Your task to perform on an android device: Open calendar and show me the fourth week of next month Image 0: 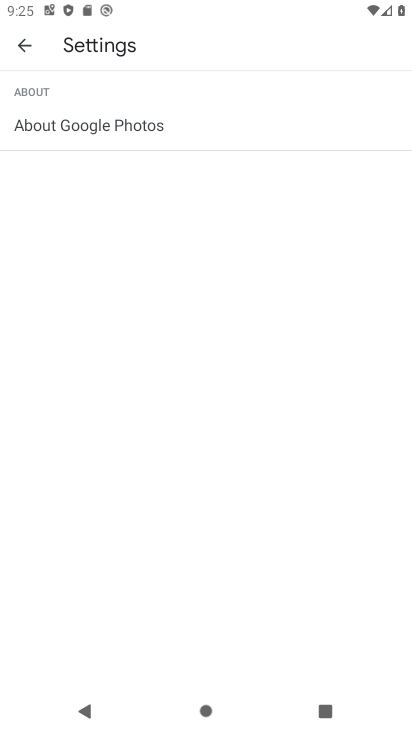
Step 0: press home button
Your task to perform on an android device: Open calendar and show me the fourth week of next month Image 1: 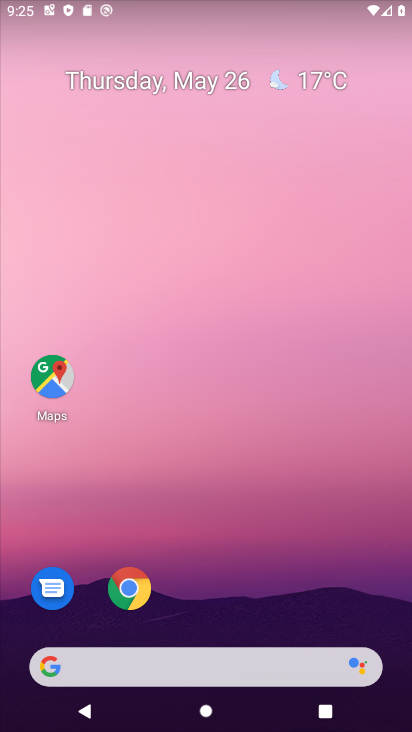
Step 1: drag from (377, 619) to (346, 101)
Your task to perform on an android device: Open calendar and show me the fourth week of next month Image 2: 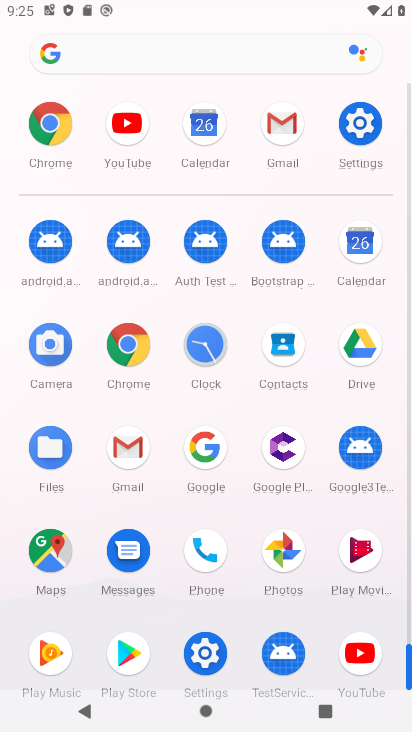
Step 2: click (360, 241)
Your task to perform on an android device: Open calendar and show me the fourth week of next month Image 3: 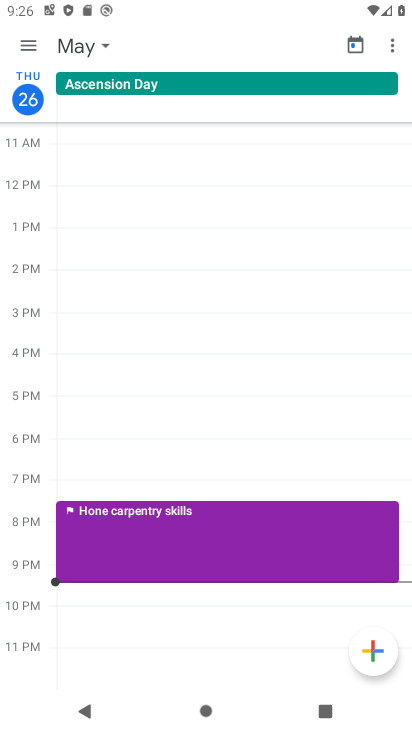
Step 3: click (26, 40)
Your task to perform on an android device: Open calendar and show me the fourth week of next month Image 4: 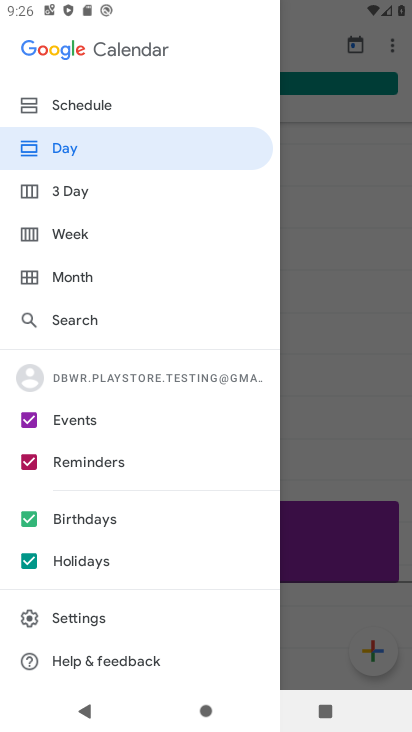
Step 4: click (71, 230)
Your task to perform on an android device: Open calendar and show me the fourth week of next month Image 5: 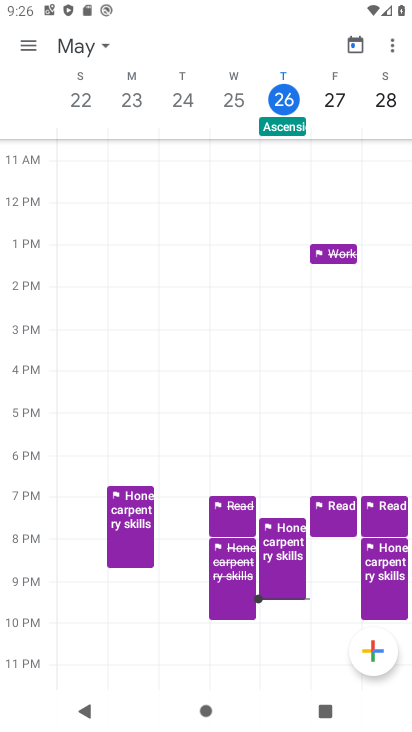
Step 5: click (104, 51)
Your task to perform on an android device: Open calendar and show me the fourth week of next month Image 6: 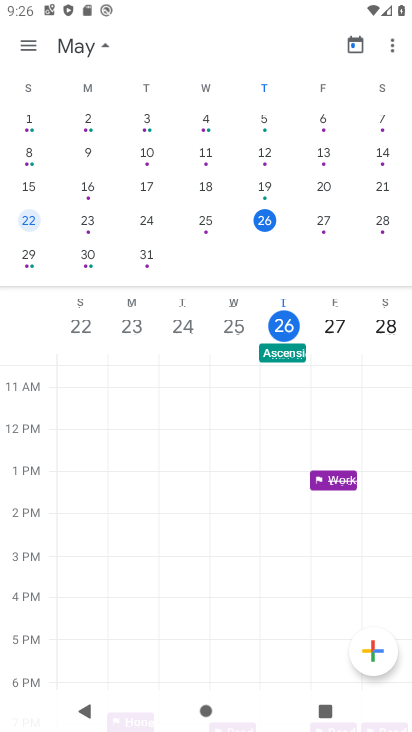
Step 6: drag from (378, 179) to (48, 193)
Your task to perform on an android device: Open calendar and show me the fourth week of next month Image 7: 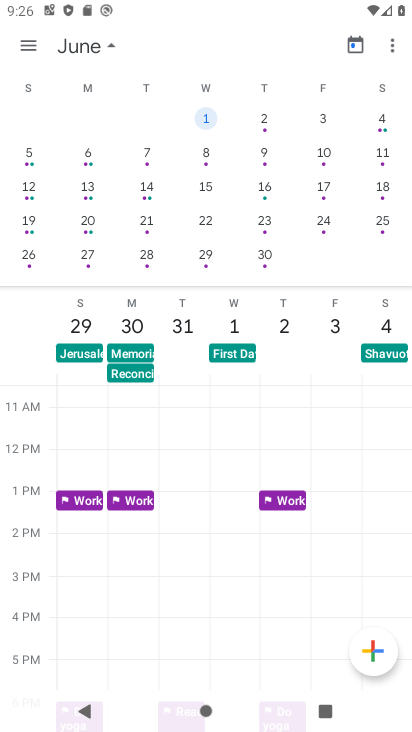
Step 7: click (27, 248)
Your task to perform on an android device: Open calendar and show me the fourth week of next month Image 8: 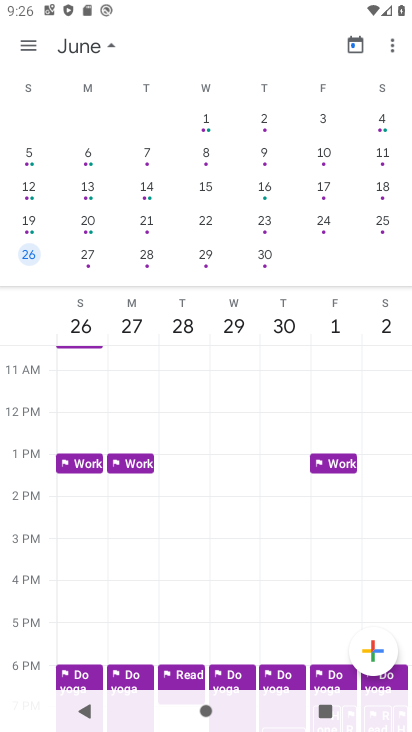
Step 8: task complete